Your task to perform on an android device: Is it going to rain tomorrow? Image 0: 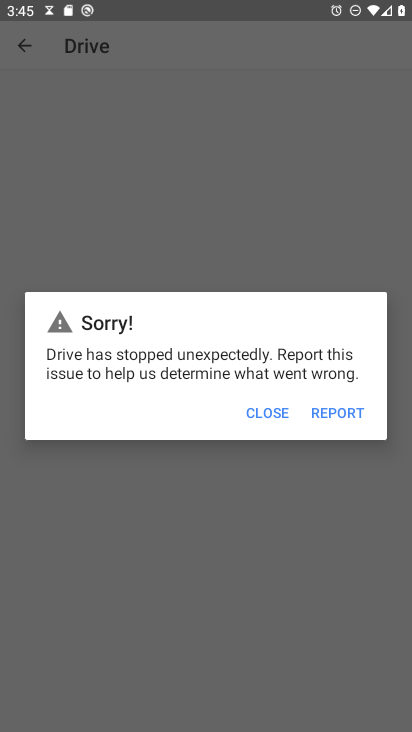
Step 0: press home button
Your task to perform on an android device: Is it going to rain tomorrow? Image 1: 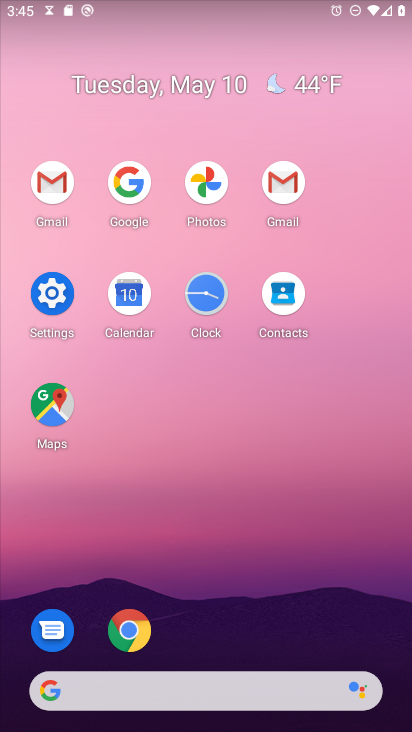
Step 1: click (131, 191)
Your task to perform on an android device: Is it going to rain tomorrow? Image 2: 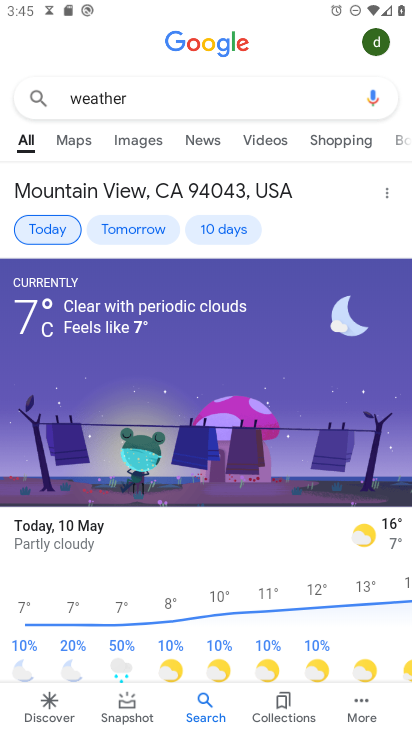
Step 2: click (131, 223)
Your task to perform on an android device: Is it going to rain tomorrow? Image 3: 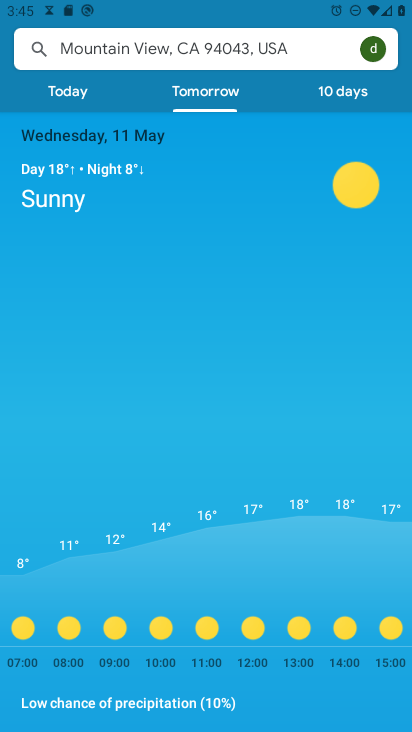
Step 3: task complete